Your task to perform on an android device: Go to CNN.com Image 0: 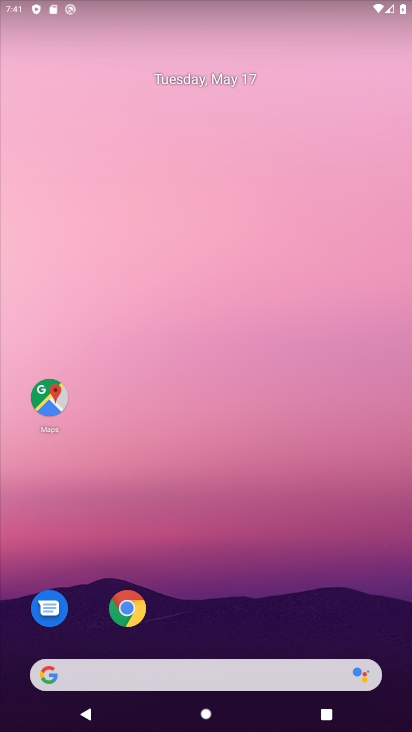
Step 0: drag from (318, 598) to (302, 162)
Your task to perform on an android device: Go to CNN.com Image 1: 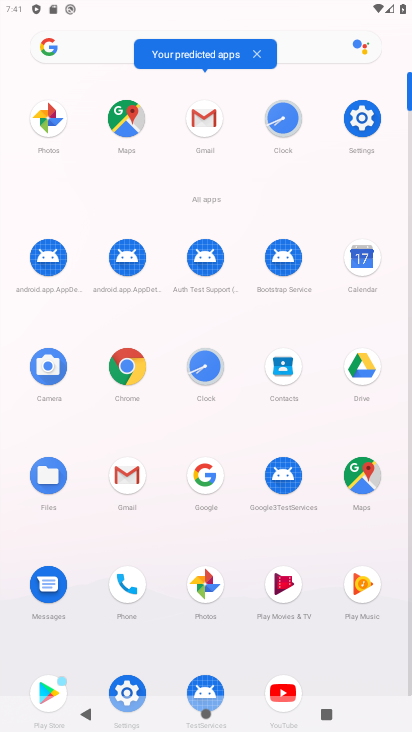
Step 1: click (134, 379)
Your task to perform on an android device: Go to CNN.com Image 2: 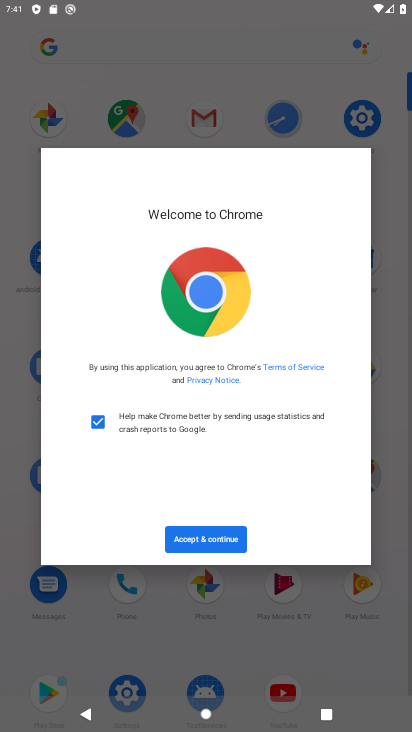
Step 2: click (197, 542)
Your task to perform on an android device: Go to CNN.com Image 3: 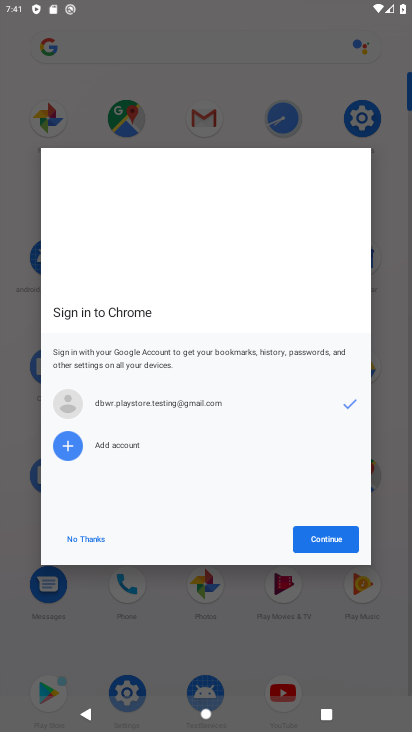
Step 3: click (334, 546)
Your task to perform on an android device: Go to CNN.com Image 4: 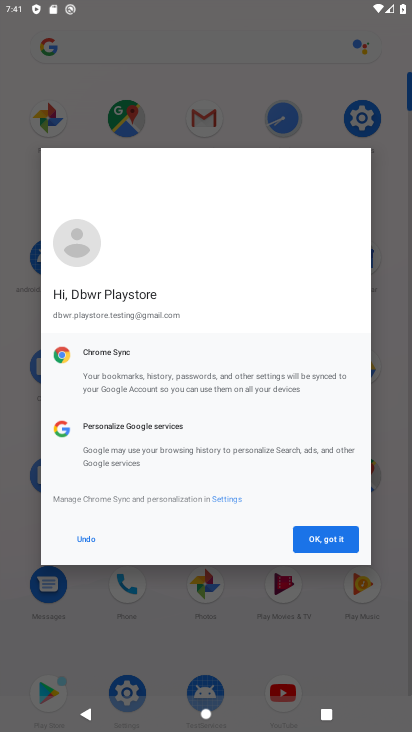
Step 4: click (333, 542)
Your task to perform on an android device: Go to CNN.com Image 5: 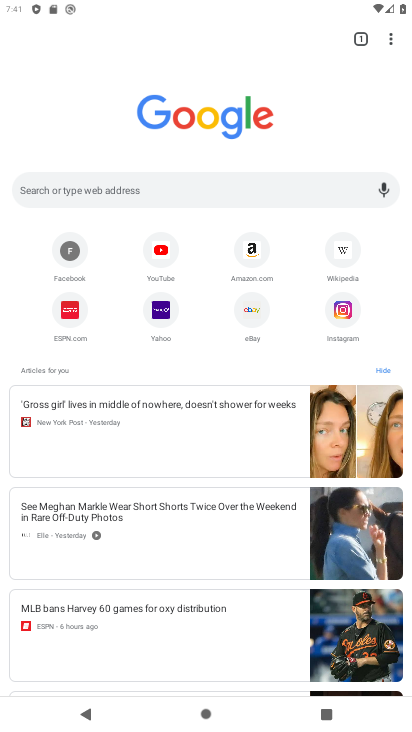
Step 5: click (160, 183)
Your task to perform on an android device: Go to CNN.com Image 6: 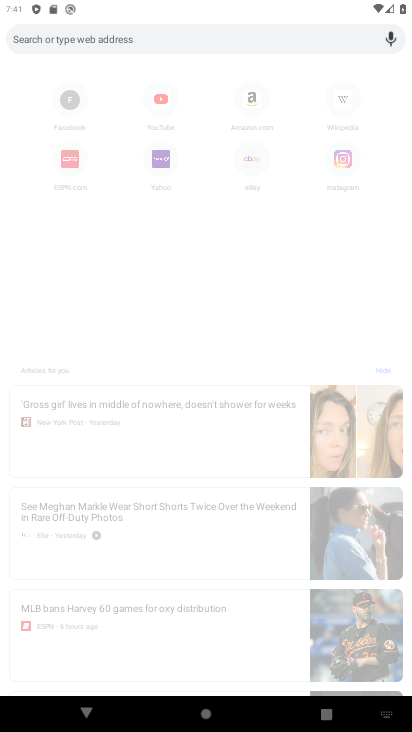
Step 6: type "cnn.com"
Your task to perform on an android device: Go to CNN.com Image 7: 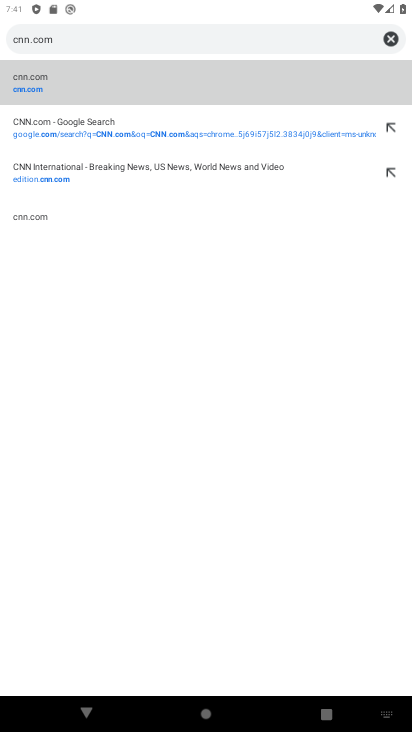
Step 7: click (28, 68)
Your task to perform on an android device: Go to CNN.com Image 8: 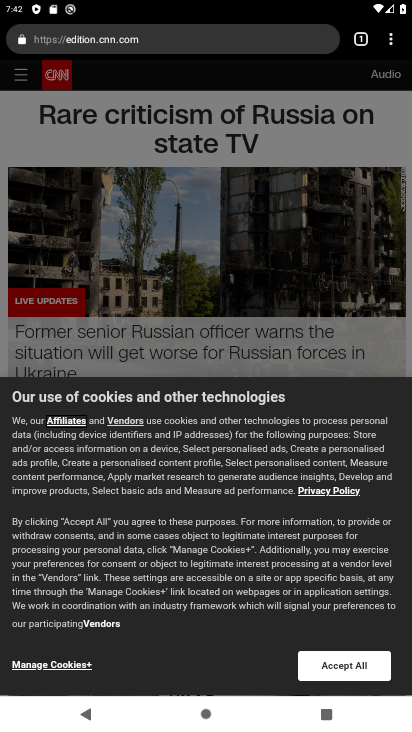
Step 8: task complete